Your task to perform on an android device: see creations saved in the google photos Image 0: 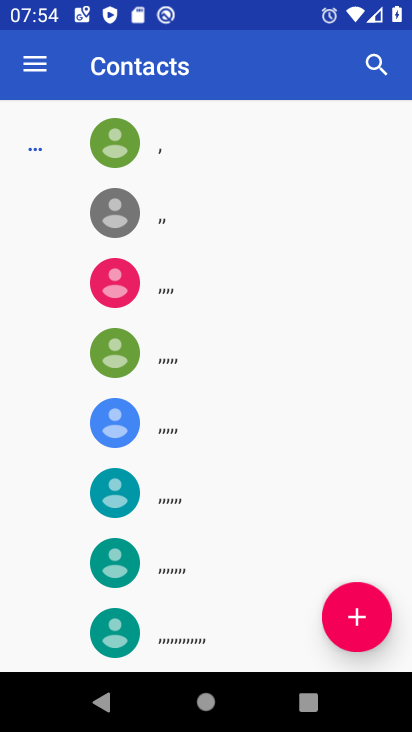
Step 0: press home button
Your task to perform on an android device: see creations saved in the google photos Image 1: 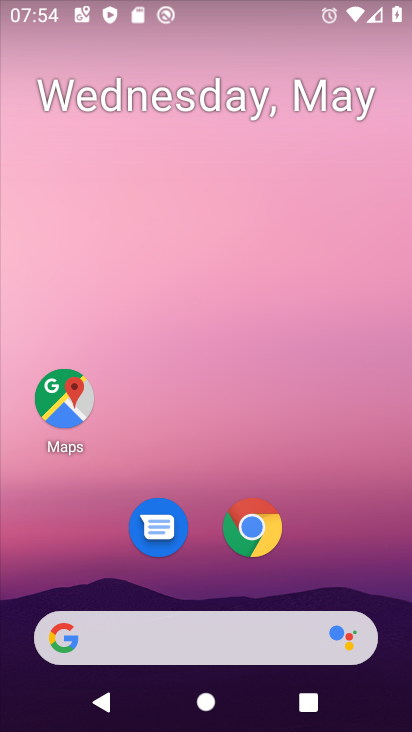
Step 1: drag from (386, 552) to (407, 11)
Your task to perform on an android device: see creations saved in the google photos Image 2: 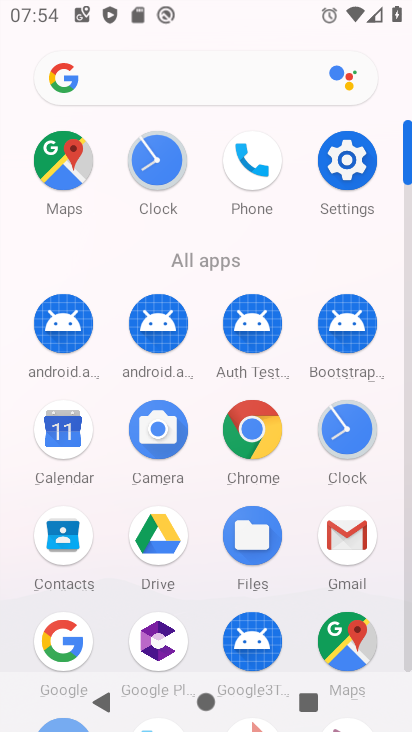
Step 2: click (406, 653)
Your task to perform on an android device: see creations saved in the google photos Image 3: 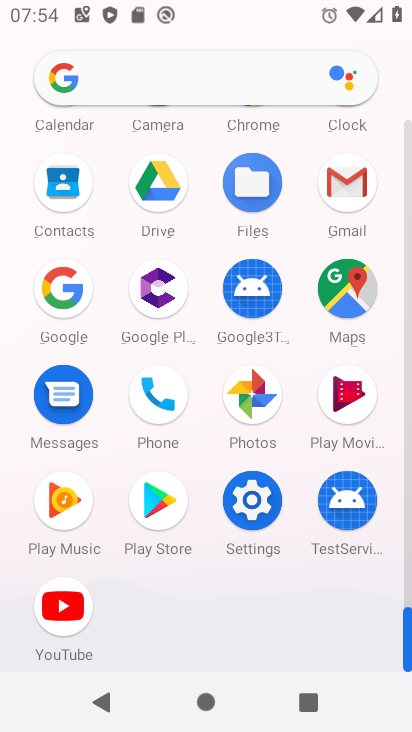
Step 3: click (241, 405)
Your task to perform on an android device: see creations saved in the google photos Image 4: 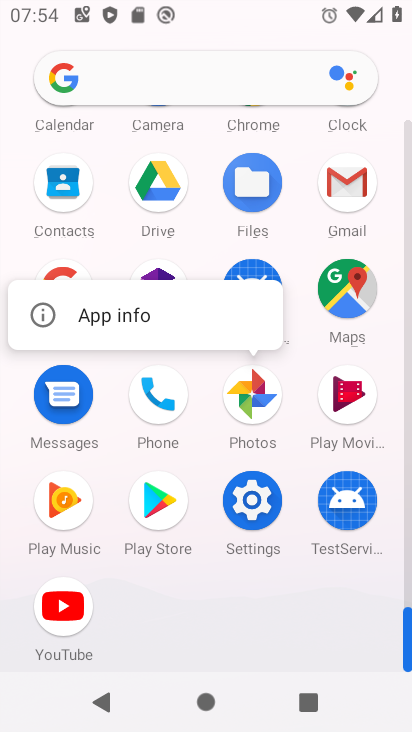
Step 4: click (166, 328)
Your task to perform on an android device: see creations saved in the google photos Image 5: 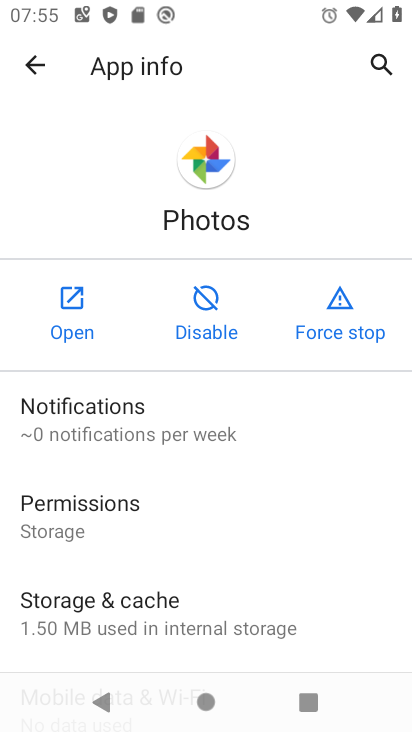
Step 5: press back button
Your task to perform on an android device: see creations saved in the google photos Image 6: 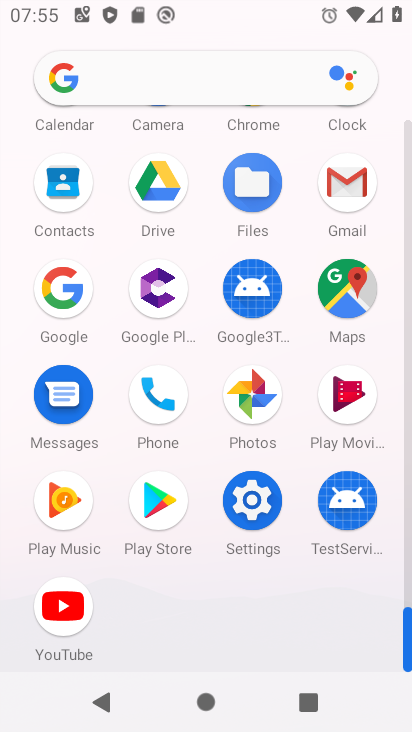
Step 6: click (241, 388)
Your task to perform on an android device: see creations saved in the google photos Image 7: 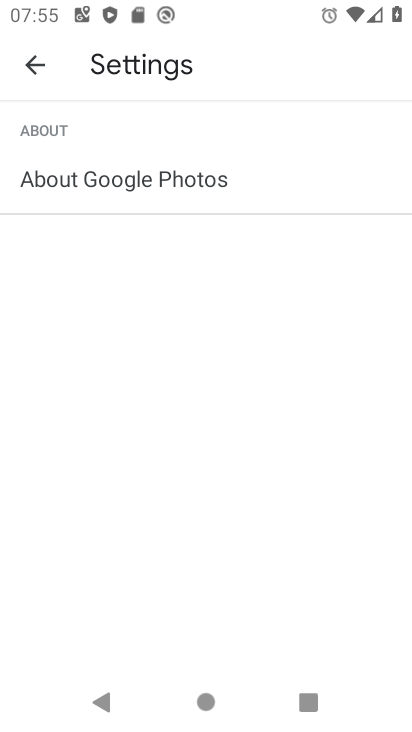
Step 7: click (33, 89)
Your task to perform on an android device: see creations saved in the google photos Image 8: 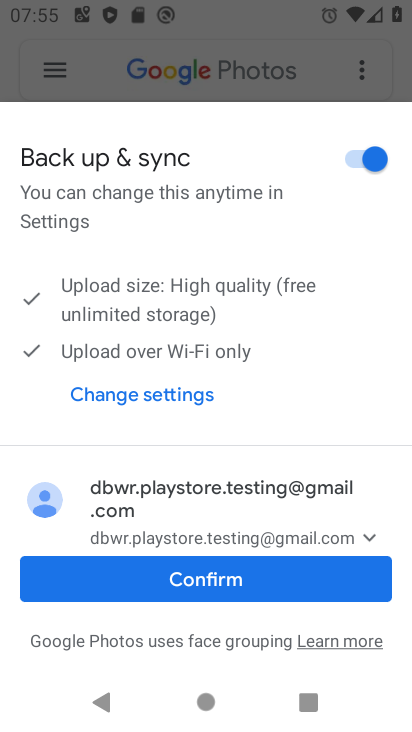
Step 8: click (230, 582)
Your task to perform on an android device: see creations saved in the google photos Image 9: 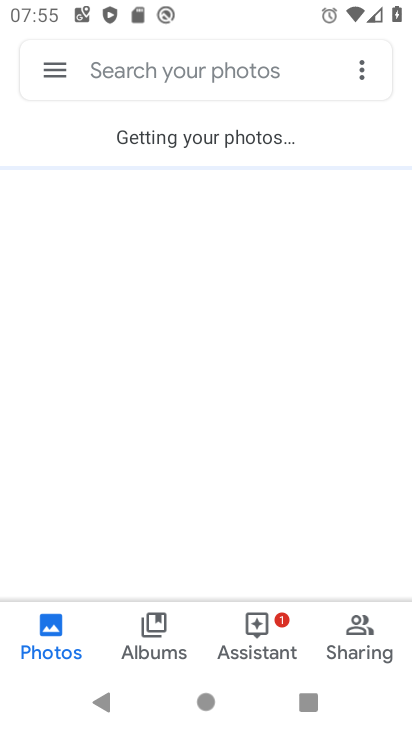
Step 9: click (306, 75)
Your task to perform on an android device: see creations saved in the google photos Image 10: 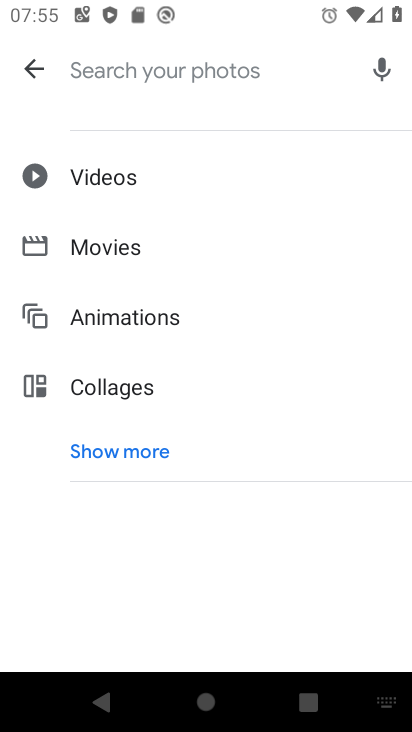
Step 10: click (85, 457)
Your task to perform on an android device: see creations saved in the google photos Image 11: 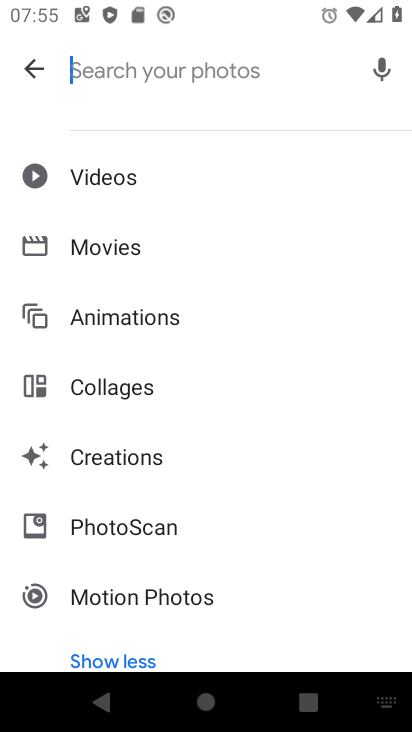
Step 11: click (134, 476)
Your task to perform on an android device: see creations saved in the google photos Image 12: 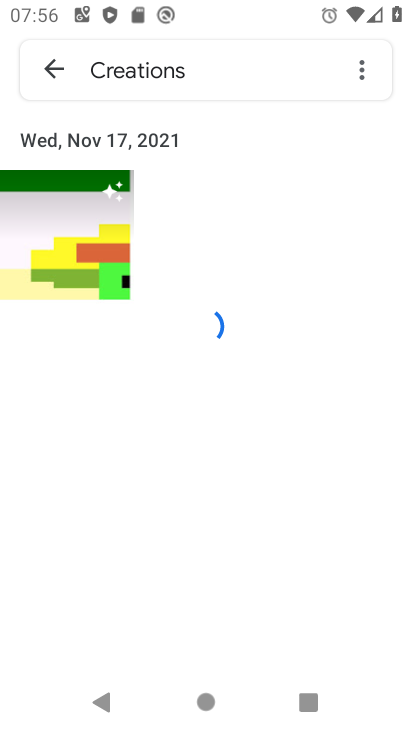
Step 12: task complete